Your task to perform on an android device: Check the news Image 0: 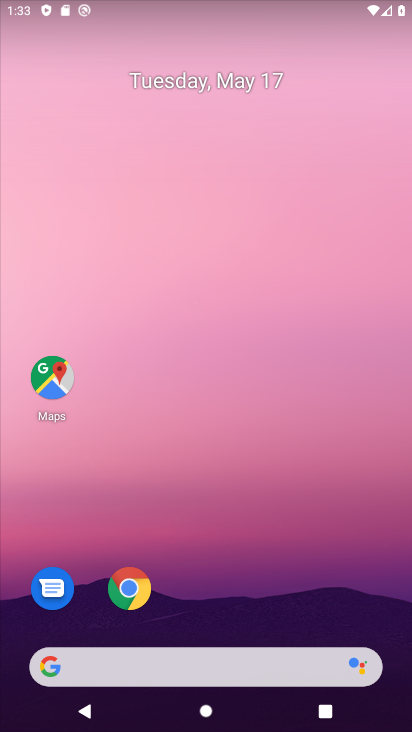
Step 0: click (131, 606)
Your task to perform on an android device: Check the news Image 1: 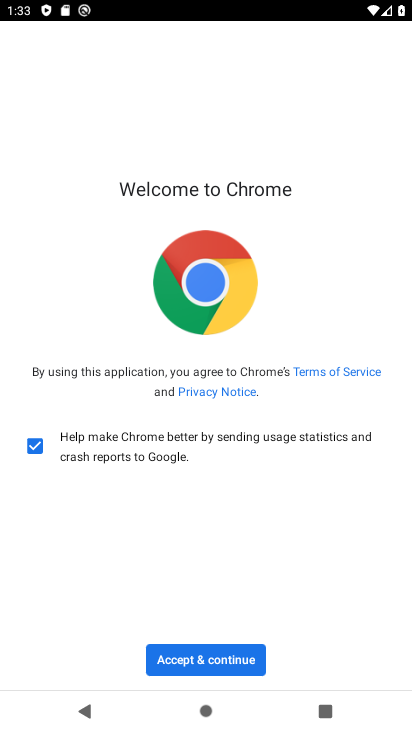
Step 1: click (221, 662)
Your task to perform on an android device: Check the news Image 2: 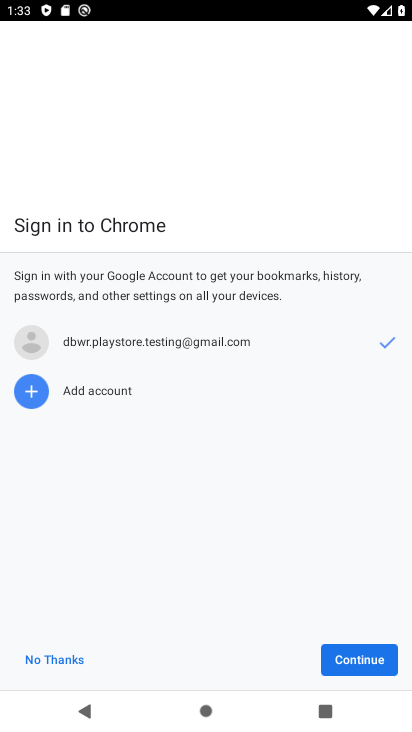
Step 2: click (366, 656)
Your task to perform on an android device: Check the news Image 3: 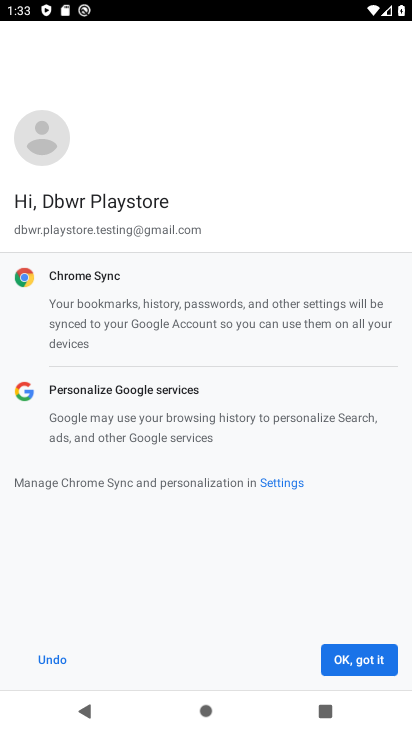
Step 3: click (366, 656)
Your task to perform on an android device: Check the news Image 4: 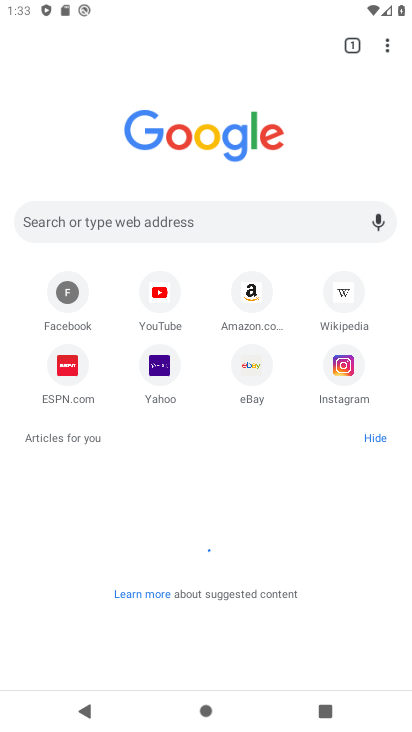
Step 4: click (201, 227)
Your task to perform on an android device: Check the news Image 5: 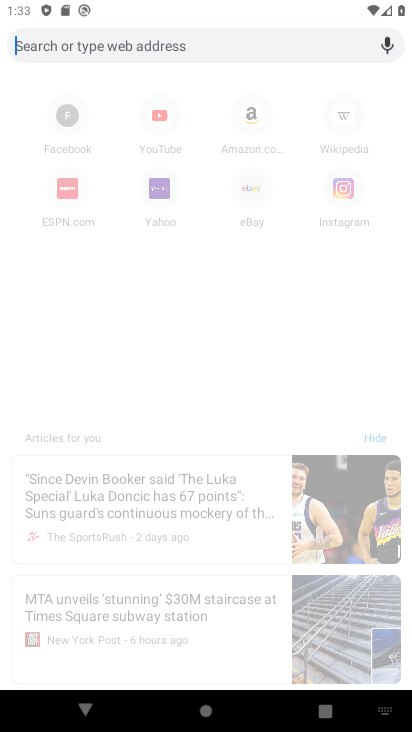
Step 5: type "news"
Your task to perform on an android device: Check the news Image 6: 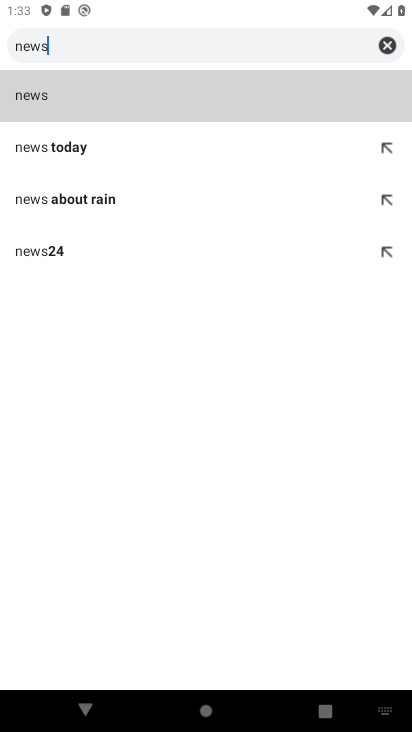
Step 6: click (29, 95)
Your task to perform on an android device: Check the news Image 7: 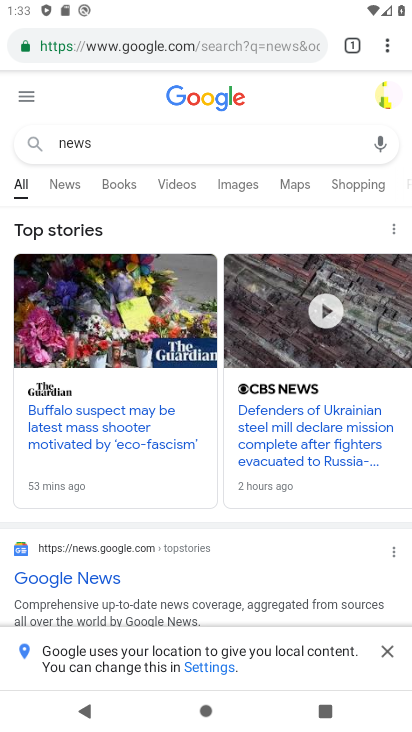
Step 7: task complete